Your task to perform on an android device: Go to Google Image 0: 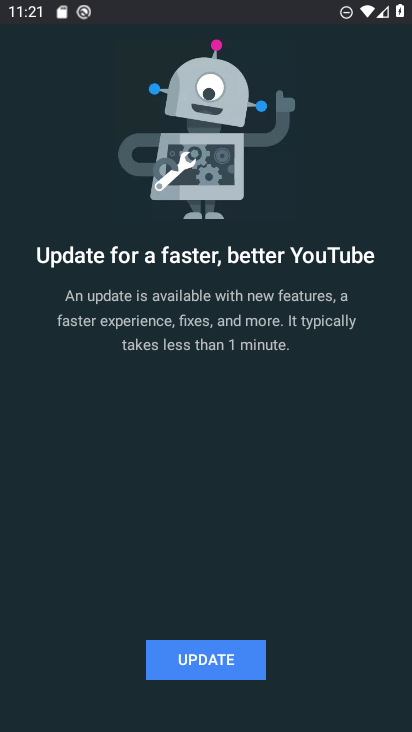
Step 0: press home button
Your task to perform on an android device: Go to Google Image 1: 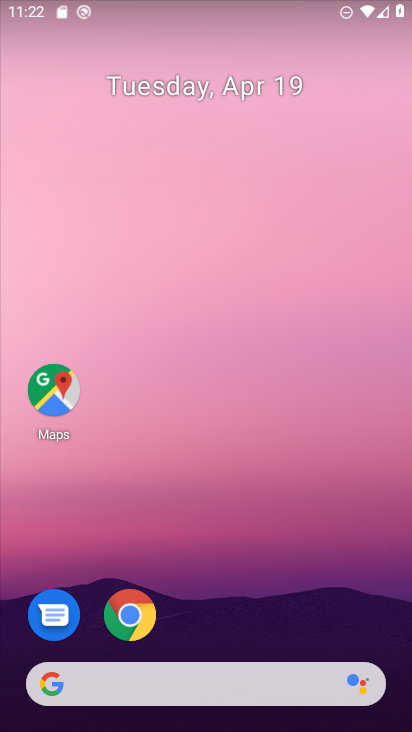
Step 1: drag from (171, 636) to (189, 233)
Your task to perform on an android device: Go to Google Image 2: 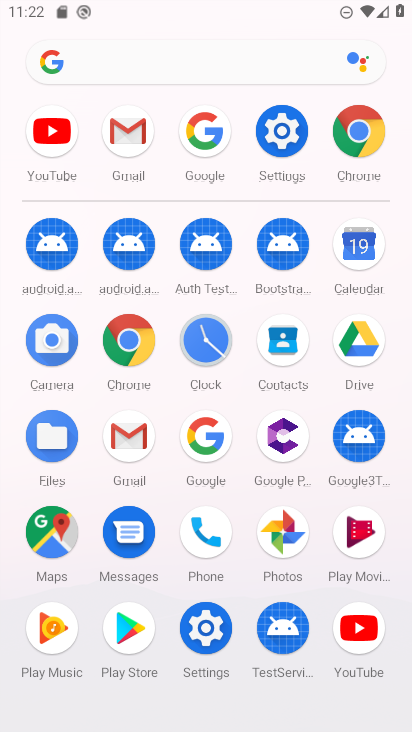
Step 2: click (198, 135)
Your task to perform on an android device: Go to Google Image 3: 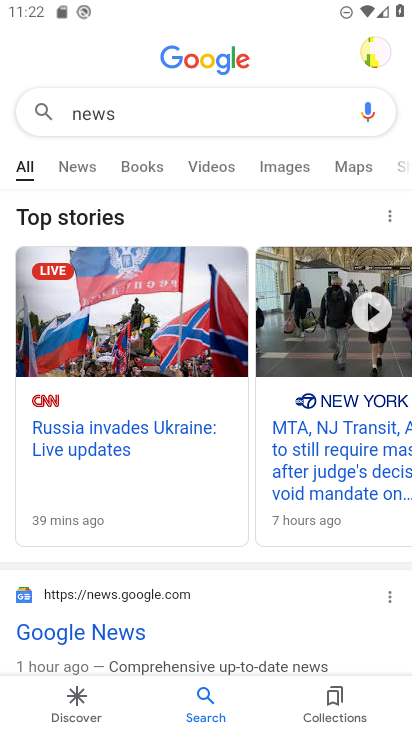
Step 3: task complete